Your task to perform on an android device: Open Maps and search for coffee Image 0: 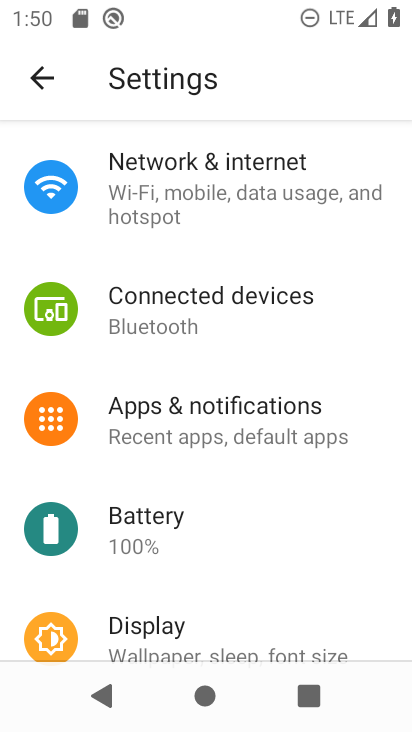
Step 0: press home button
Your task to perform on an android device: Open Maps and search for coffee Image 1: 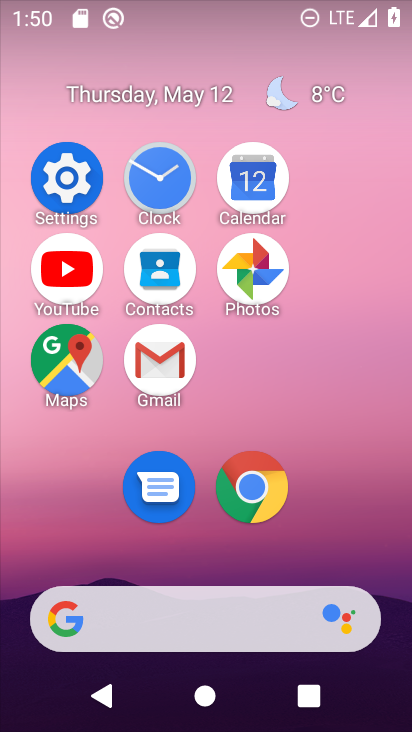
Step 1: click (83, 361)
Your task to perform on an android device: Open Maps and search for coffee Image 2: 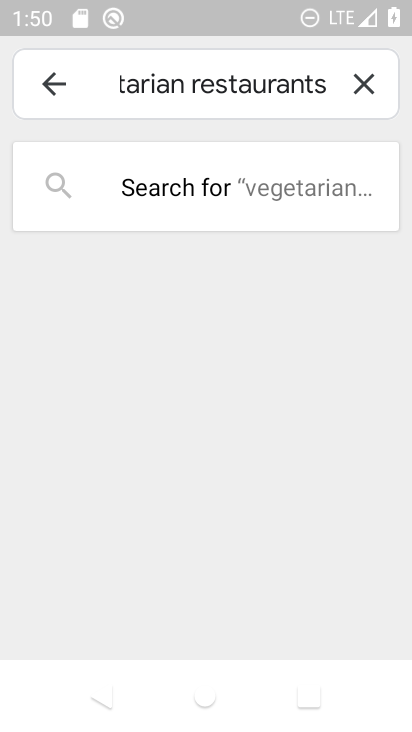
Step 2: click (365, 83)
Your task to perform on an android device: Open Maps and search for coffee Image 3: 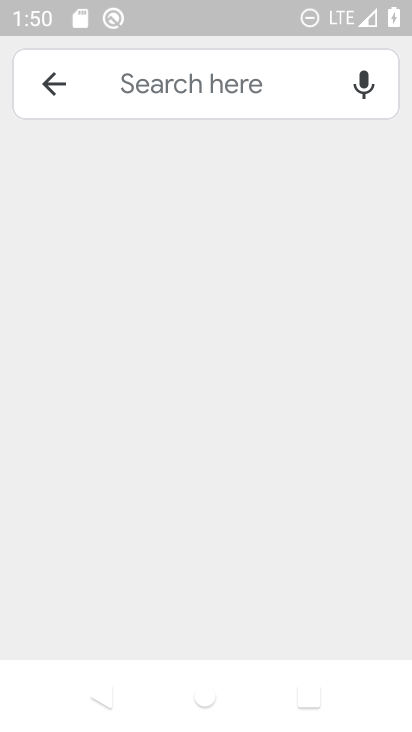
Step 3: click (187, 87)
Your task to perform on an android device: Open Maps and search for coffee Image 4: 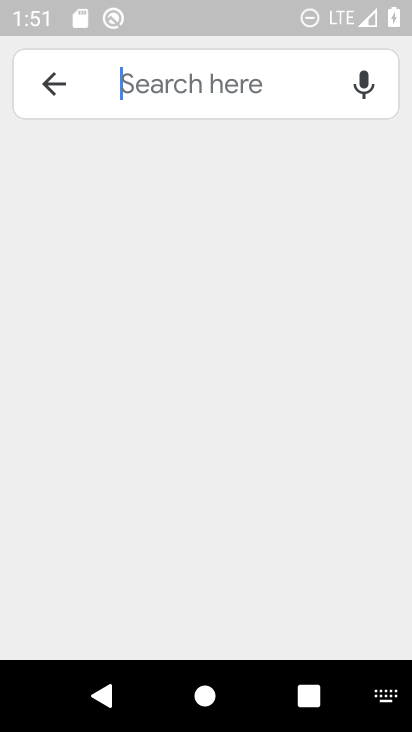
Step 4: type "coffee"
Your task to perform on an android device: Open Maps and search for coffee Image 5: 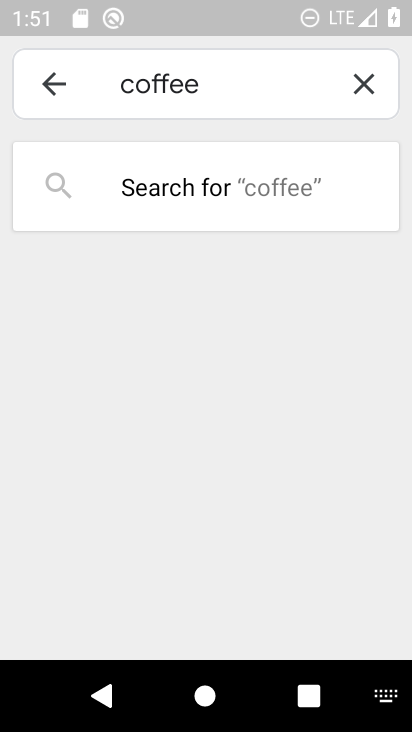
Step 5: task complete